Your task to perform on an android device: Turn off the flashlight Image 0: 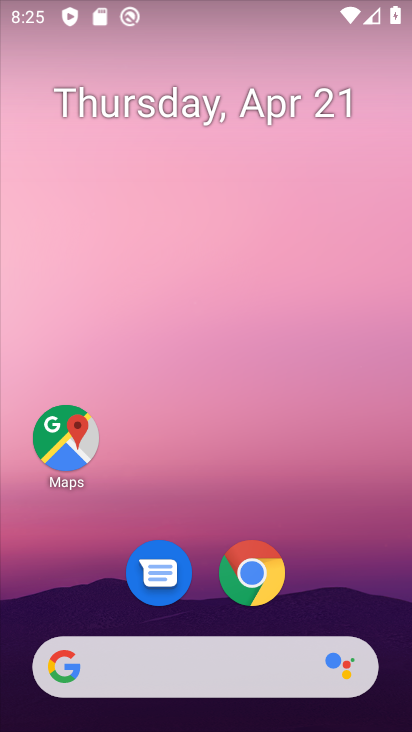
Step 0: drag from (351, 550) to (305, 347)
Your task to perform on an android device: Turn off the flashlight Image 1: 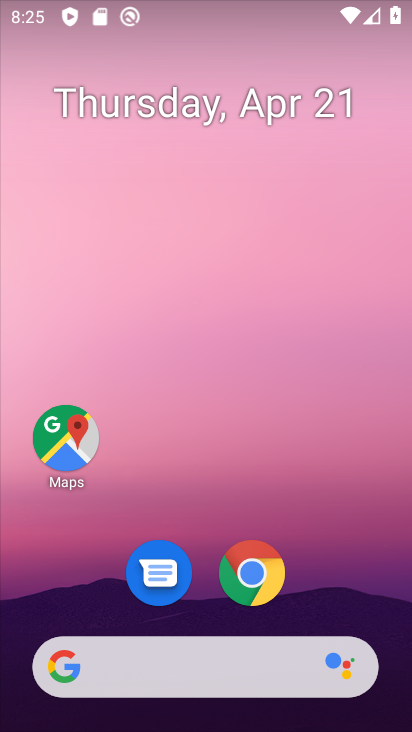
Step 1: drag from (332, 13) to (226, 534)
Your task to perform on an android device: Turn off the flashlight Image 2: 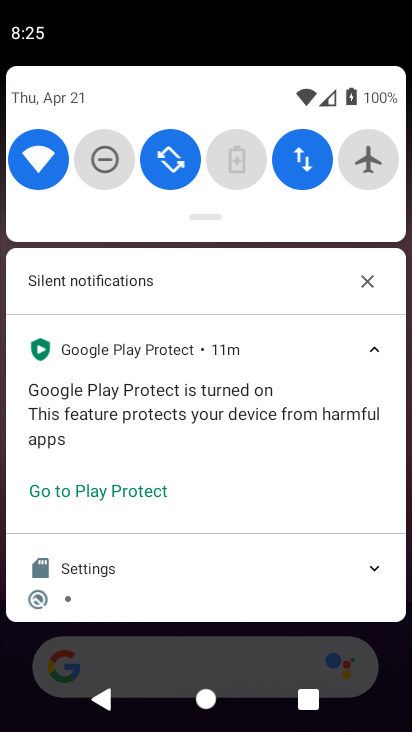
Step 2: drag from (220, 209) to (214, 564)
Your task to perform on an android device: Turn off the flashlight Image 3: 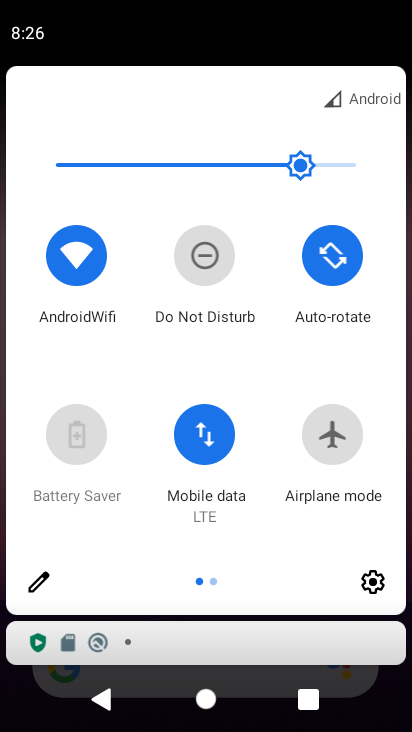
Step 3: click (35, 588)
Your task to perform on an android device: Turn off the flashlight Image 4: 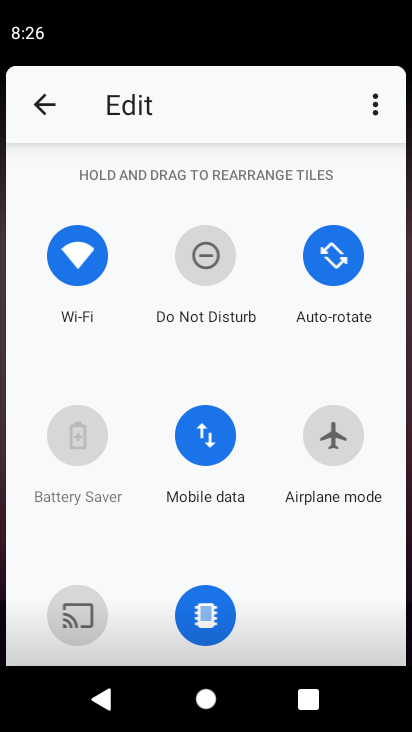
Step 4: task complete